Your task to perform on an android device: turn on location history Image 0: 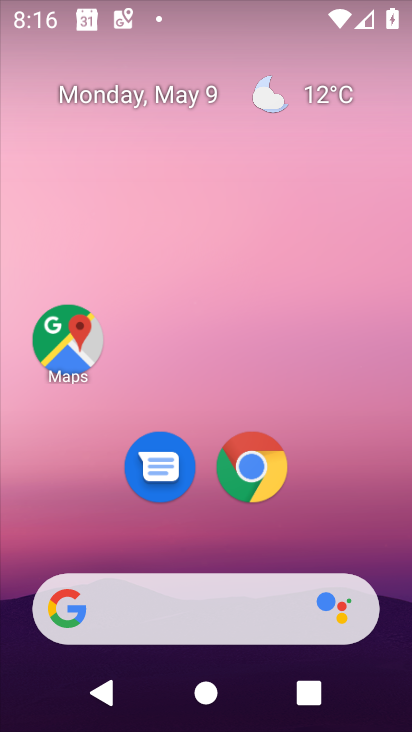
Step 0: click (65, 342)
Your task to perform on an android device: turn on location history Image 1: 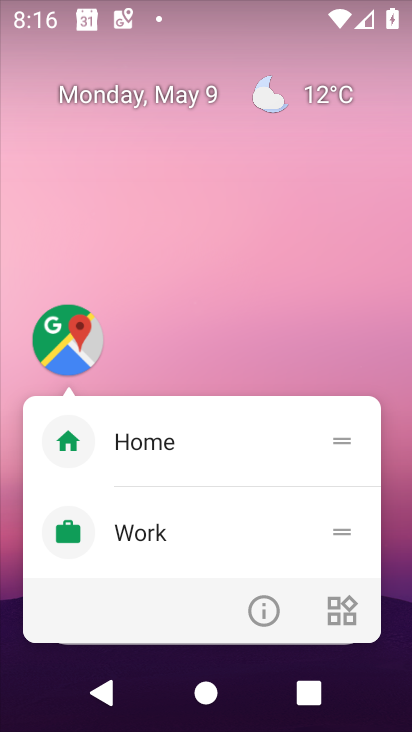
Step 1: click (65, 344)
Your task to perform on an android device: turn on location history Image 2: 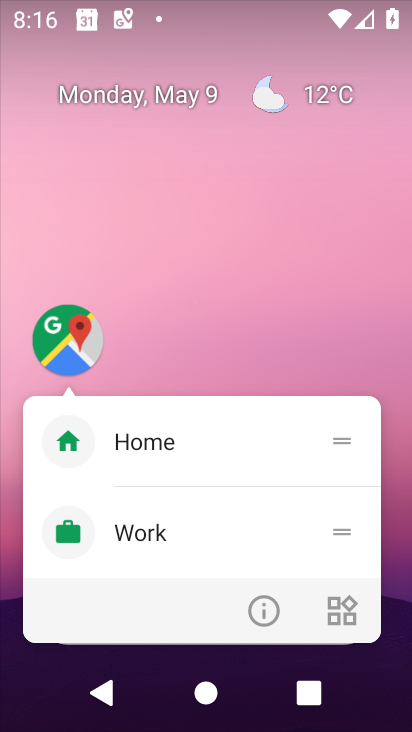
Step 2: click (67, 341)
Your task to perform on an android device: turn on location history Image 3: 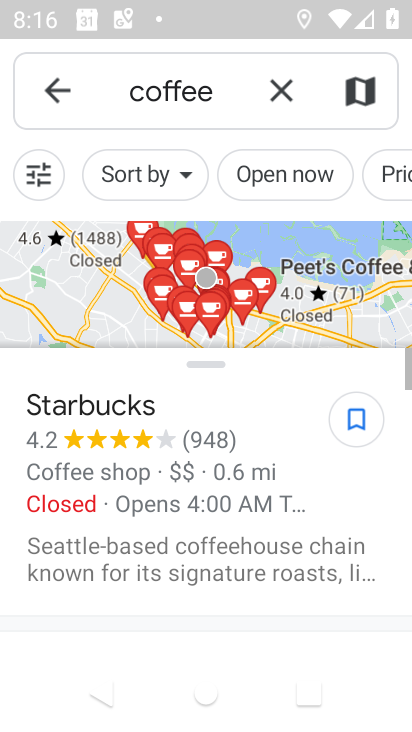
Step 3: click (291, 90)
Your task to perform on an android device: turn on location history Image 4: 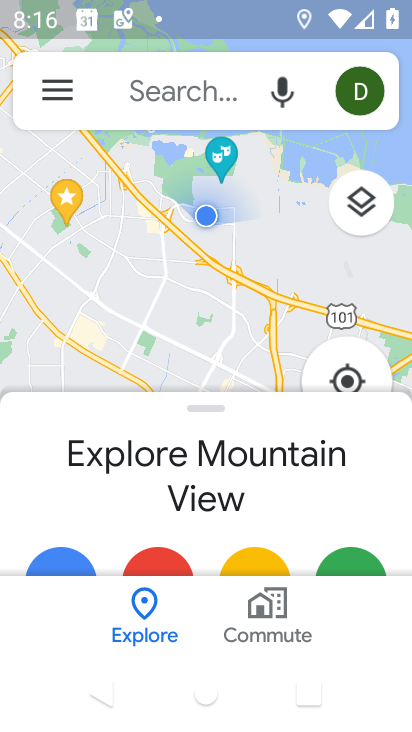
Step 4: click (59, 86)
Your task to perform on an android device: turn on location history Image 5: 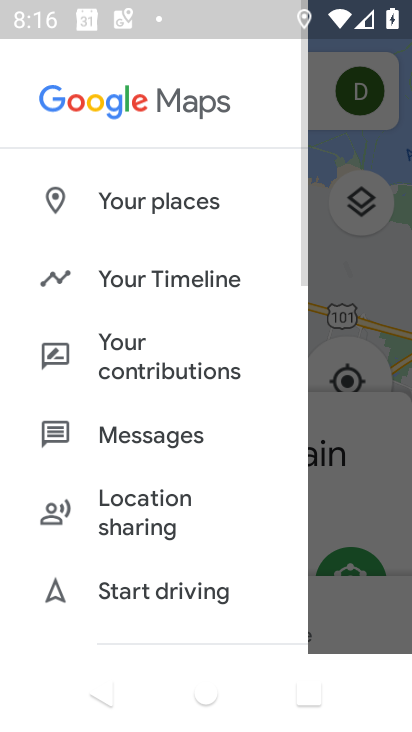
Step 5: click (85, 276)
Your task to perform on an android device: turn on location history Image 6: 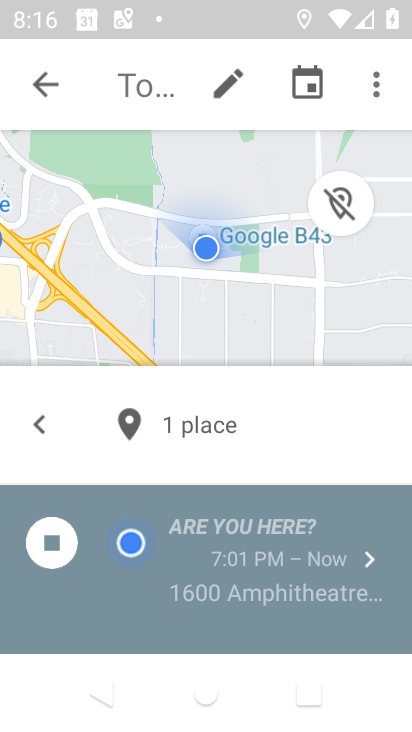
Step 6: click (379, 86)
Your task to perform on an android device: turn on location history Image 7: 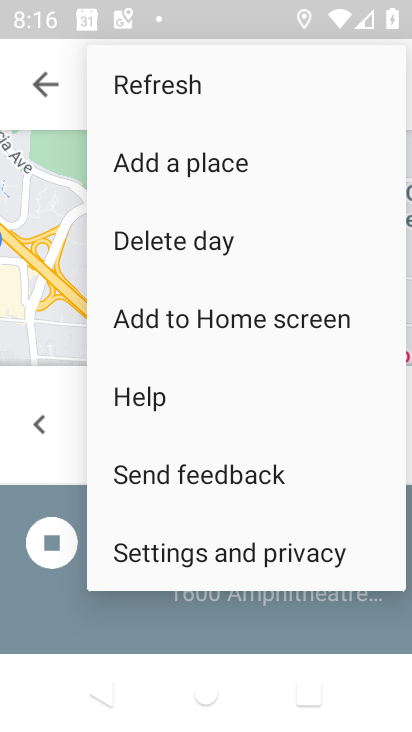
Step 7: click (207, 546)
Your task to perform on an android device: turn on location history Image 8: 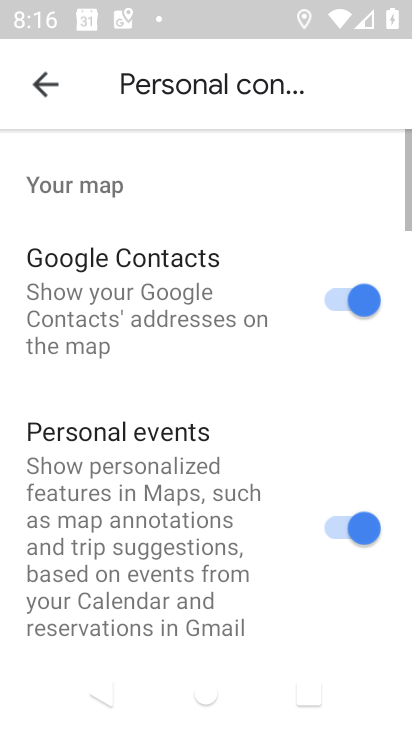
Step 8: drag from (183, 559) to (180, 59)
Your task to perform on an android device: turn on location history Image 9: 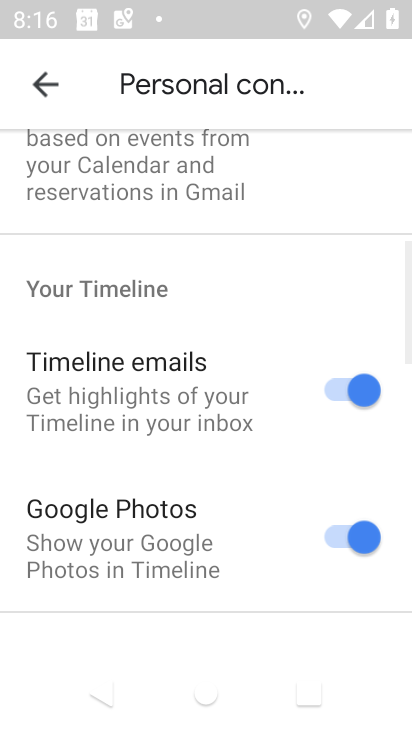
Step 9: drag from (170, 554) to (156, 90)
Your task to perform on an android device: turn on location history Image 10: 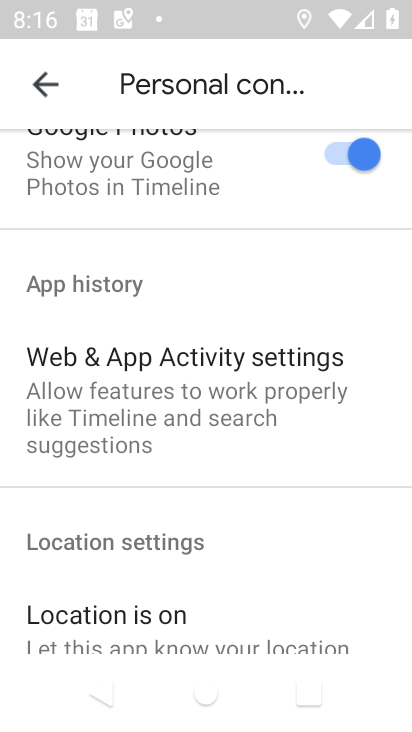
Step 10: drag from (142, 610) to (138, 112)
Your task to perform on an android device: turn on location history Image 11: 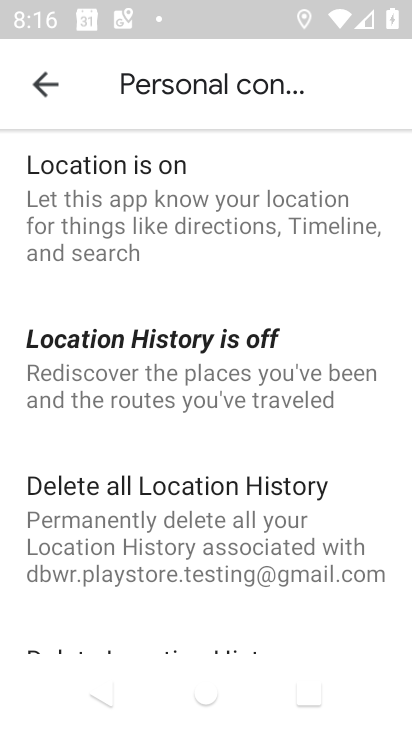
Step 11: click (126, 367)
Your task to perform on an android device: turn on location history Image 12: 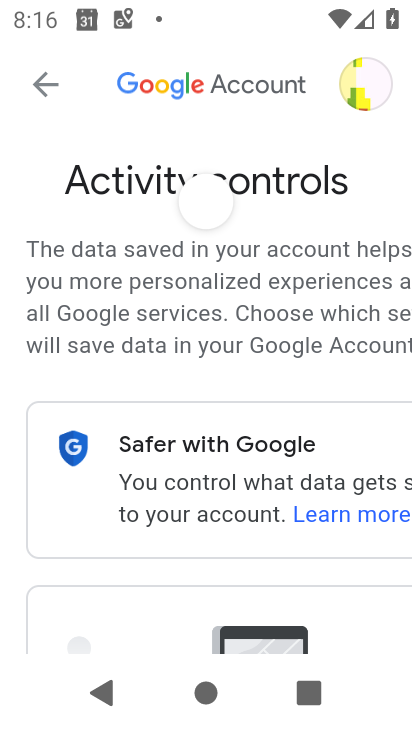
Step 12: drag from (209, 549) to (208, 184)
Your task to perform on an android device: turn on location history Image 13: 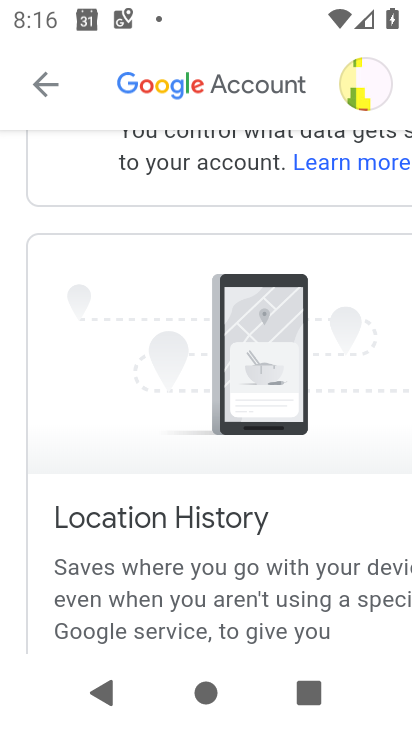
Step 13: drag from (182, 527) to (172, 114)
Your task to perform on an android device: turn on location history Image 14: 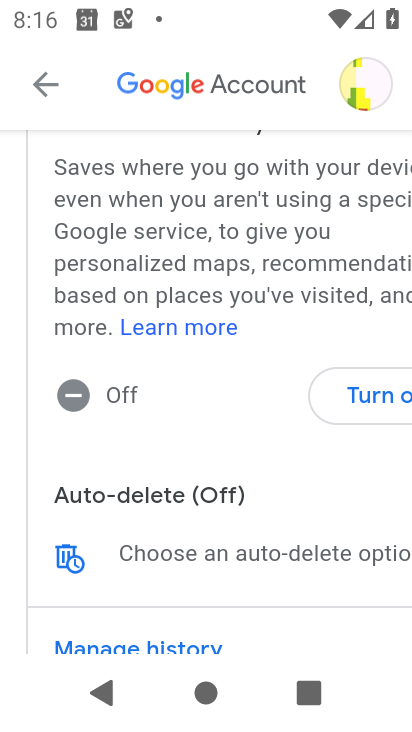
Step 14: click (363, 388)
Your task to perform on an android device: turn on location history Image 15: 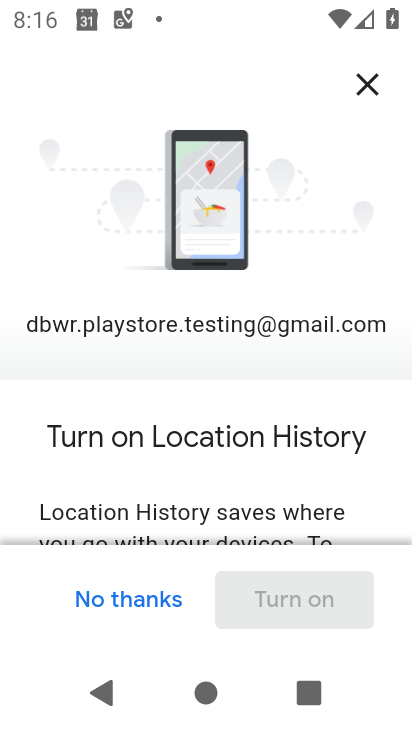
Step 15: drag from (209, 522) to (190, 103)
Your task to perform on an android device: turn on location history Image 16: 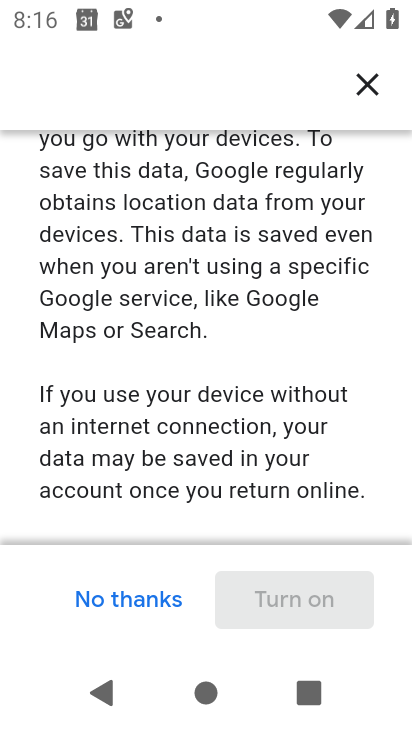
Step 16: drag from (178, 428) to (176, 144)
Your task to perform on an android device: turn on location history Image 17: 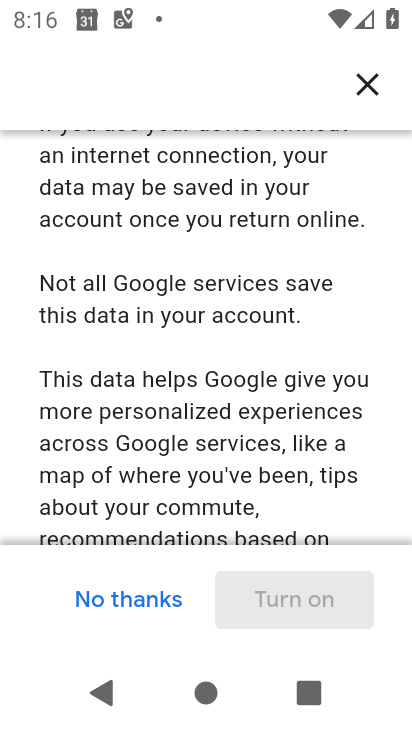
Step 17: drag from (230, 514) to (219, 164)
Your task to perform on an android device: turn on location history Image 18: 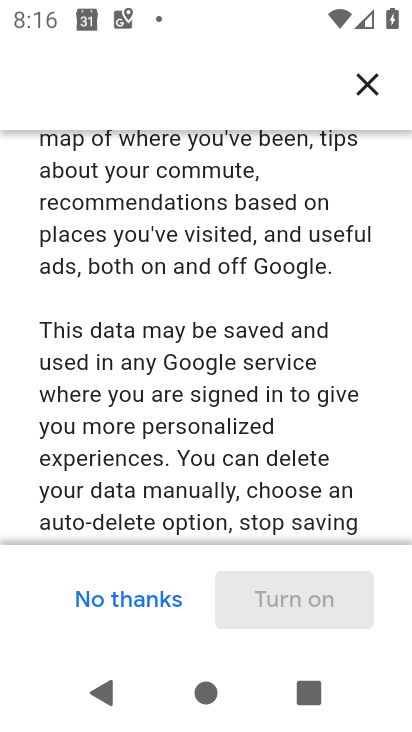
Step 18: drag from (249, 484) to (220, 103)
Your task to perform on an android device: turn on location history Image 19: 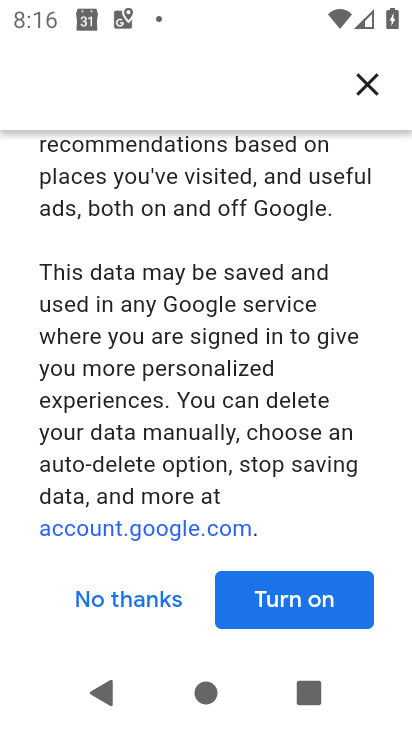
Step 19: click (284, 604)
Your task to perform on an android device: turn on location history Image 20: 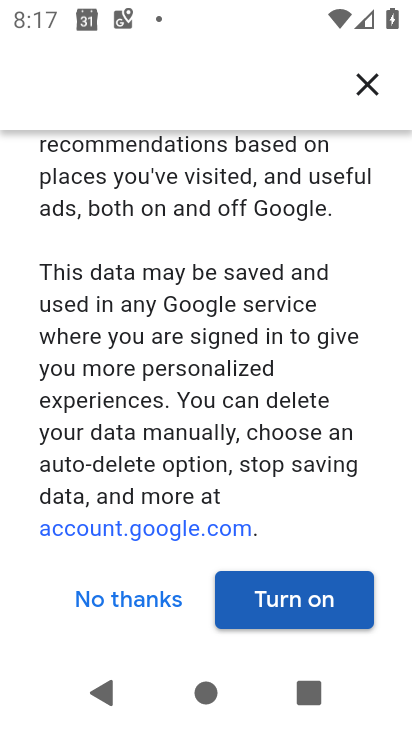
Step 20: click (314, 602)
Your task to perform on an android device: turn on location history Image 21: 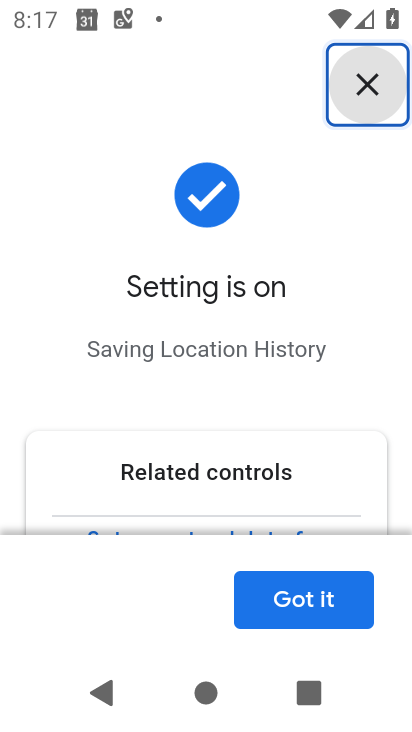
Step 21: click (290, 604)
Your task to perform on an android device: turn on location history Image 22: 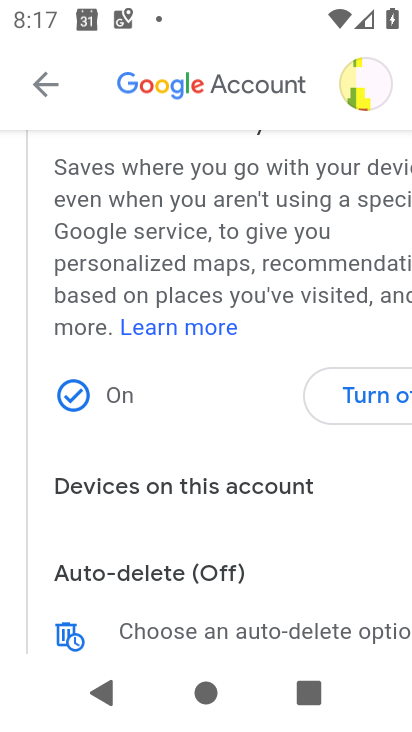
Step 22: task complete